Your task to perform on an android device: clear history in the chrome app Image 0: 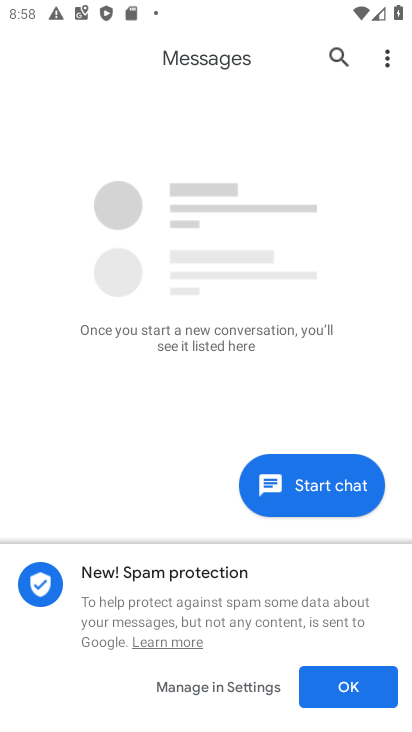
Step 0: press home button
Your task to perform on an android device: clear history in the chrome app Image 1: 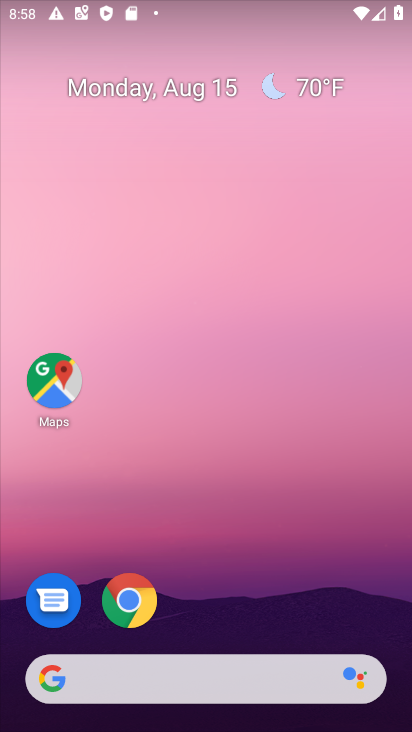
Step 1: click (129, 595)
Your task to perform on an android device: clear history in the chrome app Image 2: 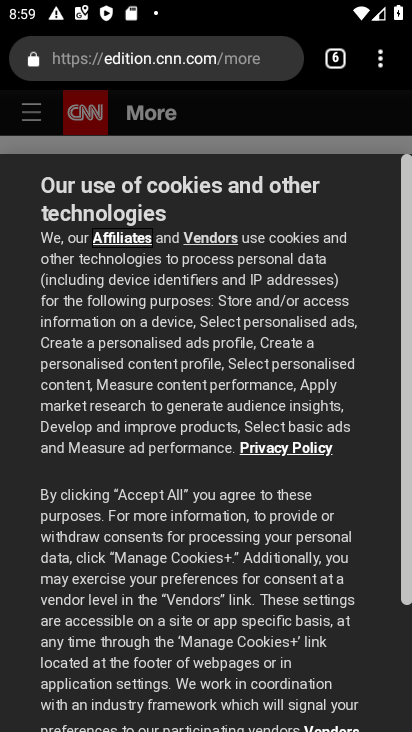
Step 2: click (380, 68)
Your task to perform on an android device: clear history in the chrome app Image 3: 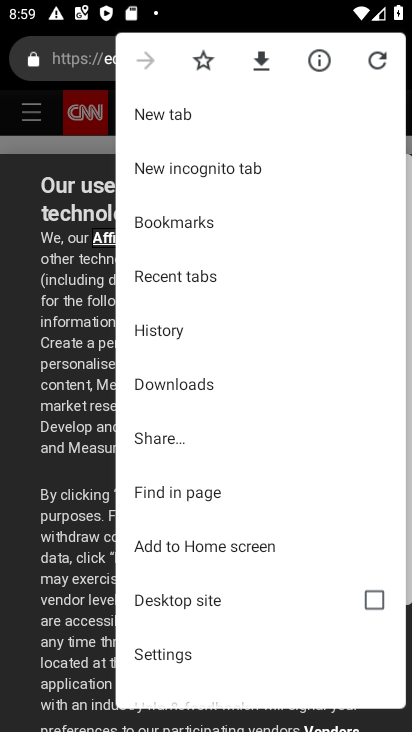
Step 3: click (148, 330)
Your task to perform on an android device: clear history in the chrome app Image 4: 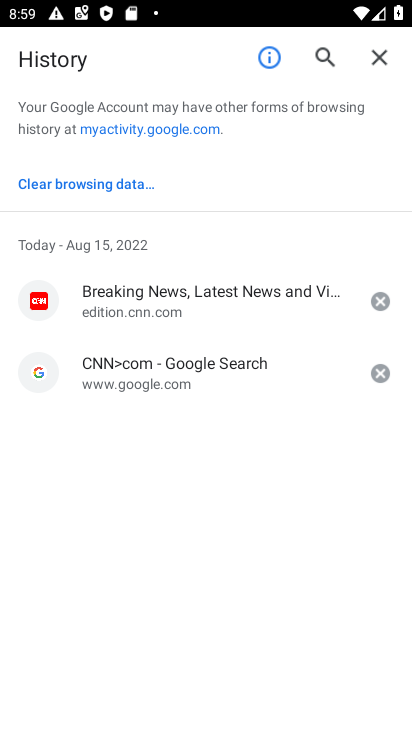
Step 4: click (94, 180)
Your task to perform on an android device: clear history in the chrome app Image 5: 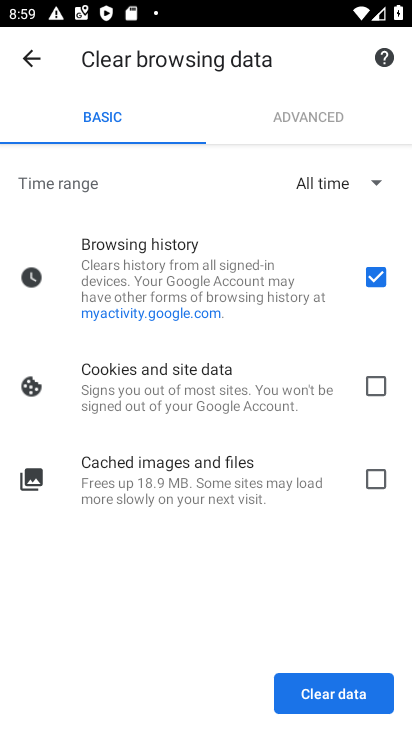
Step 5: click (346, 686)
Your task to perform on an android device: clear history in the chrome app Image 6: 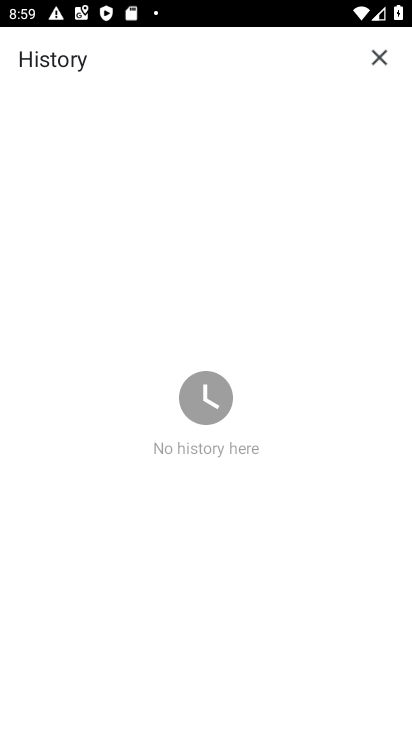
Step 6: task complete